Your task to perform on an android device: clear all cookies in the chrome app Image 0: 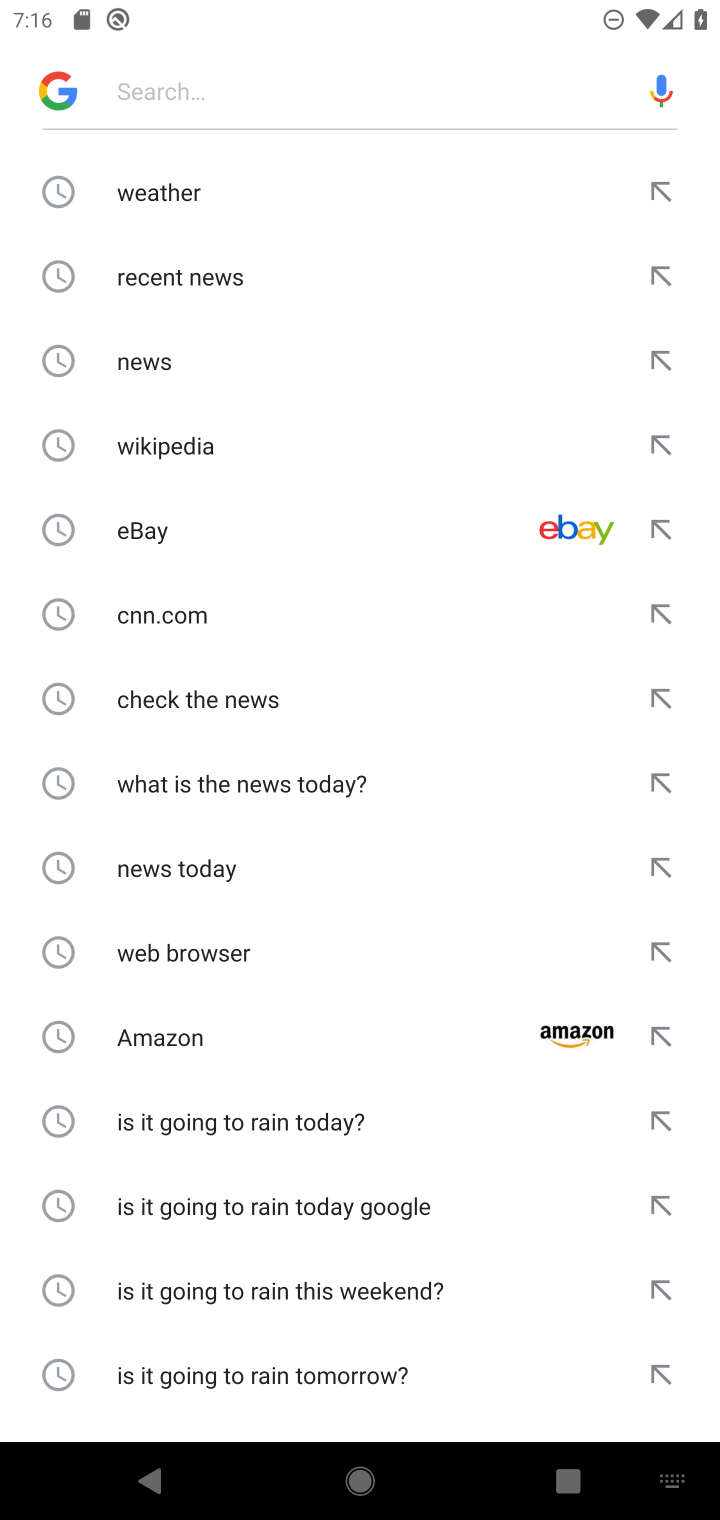
Step 0: press home button
Your task to perform on an android device: clear all cookies in the chrome app Image 1: 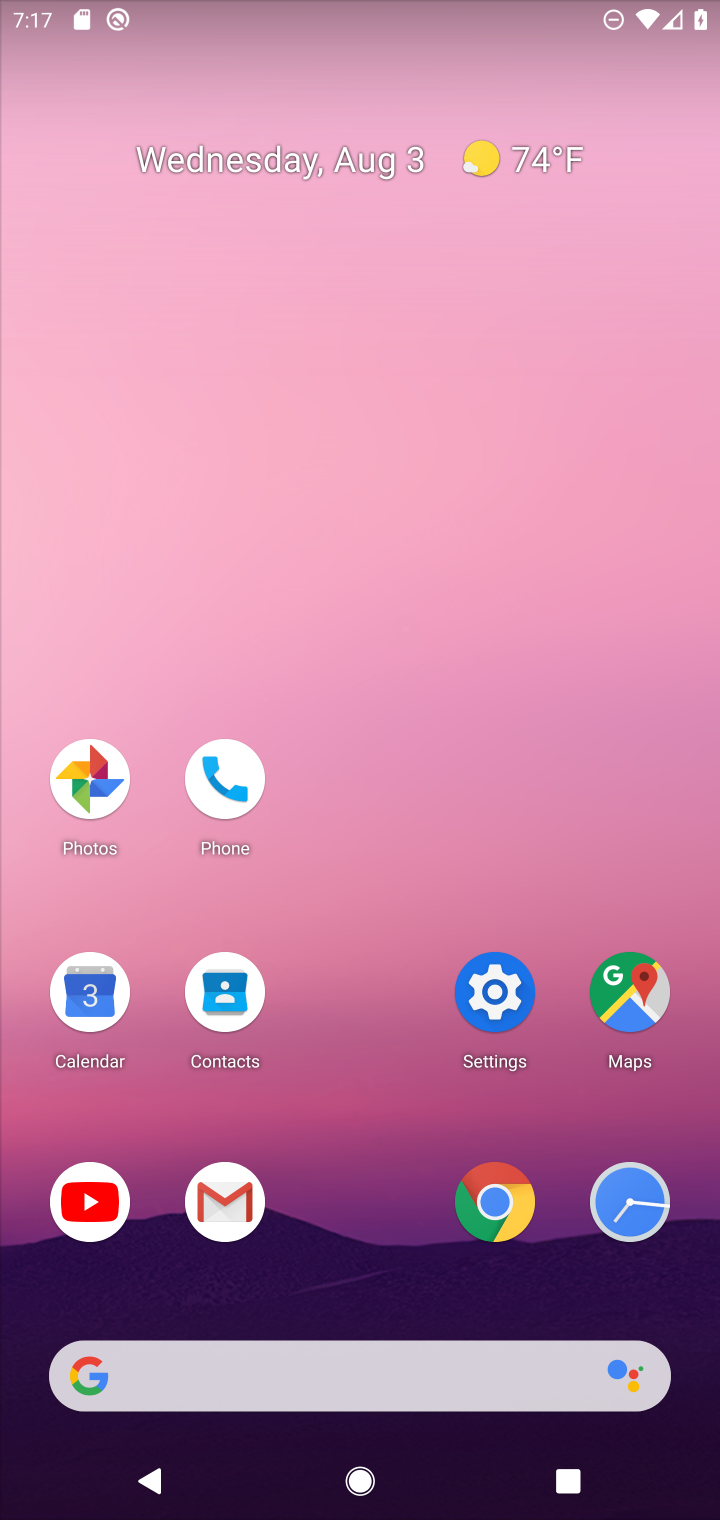
Step 1: click (493, 1190)
Your task to perform on an android device: clear all cookies in the chrome app Image 2: 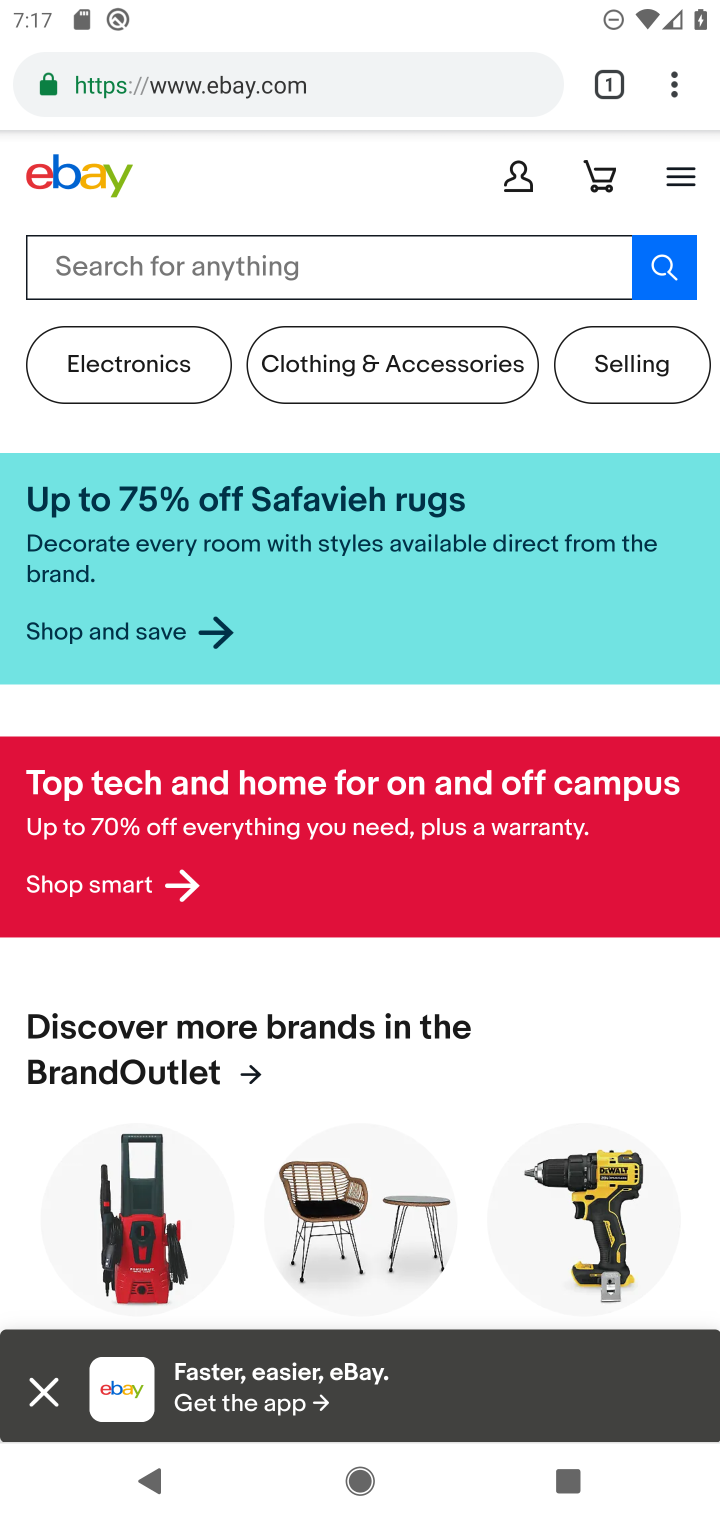
Step 2: click (680, 83)
Your task to perform on an android device: clear all cookies in the chrome app Image 3: 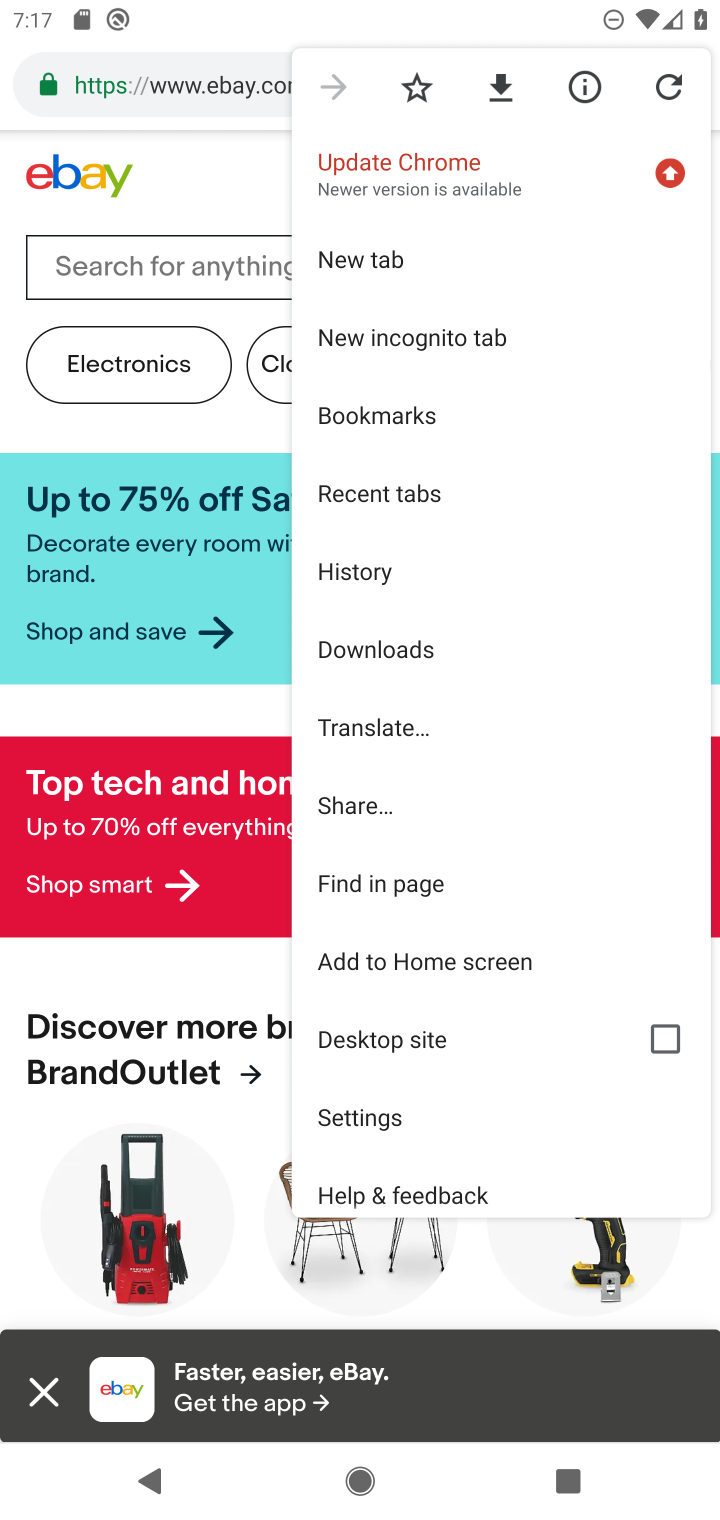
Step 3: click (366, 561)
Your task to perform on an android device: clear all cookies in the chrome app Image 4: 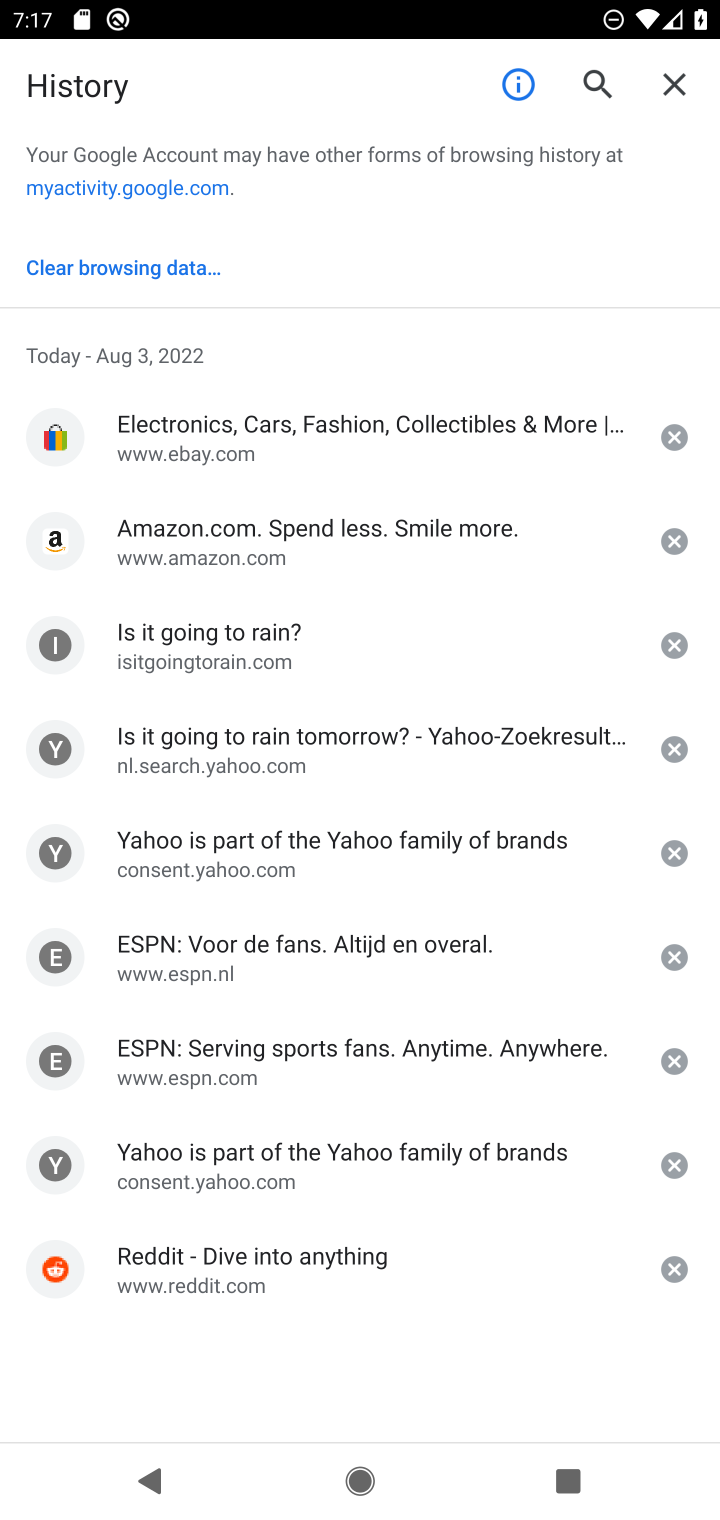
Step 4: click (116, 269)
Your task to perform on an android device: clear all cookies in the chrome app Image 5: 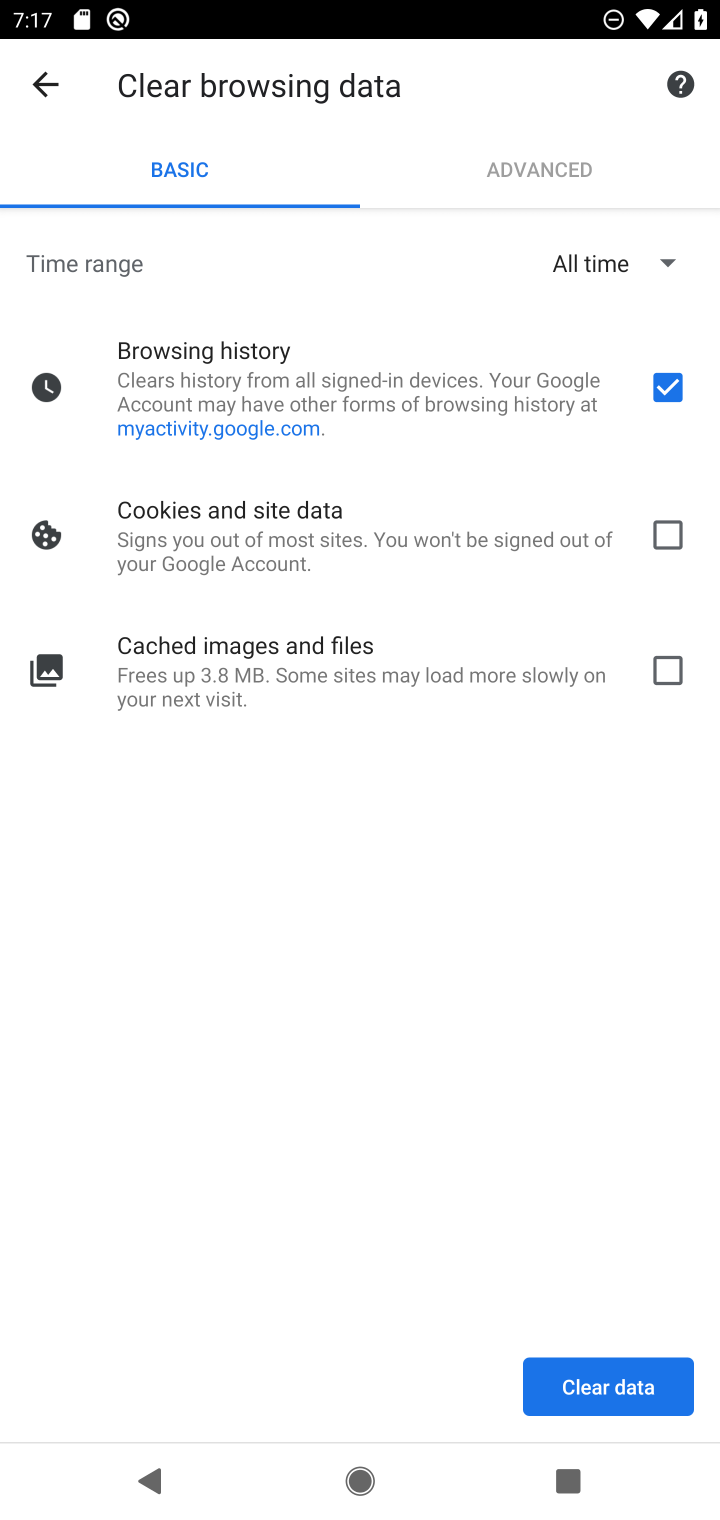
Step 5: click (661, 530)
Your task to perform on an android device: clear all cookies in the chrome app Image 6: 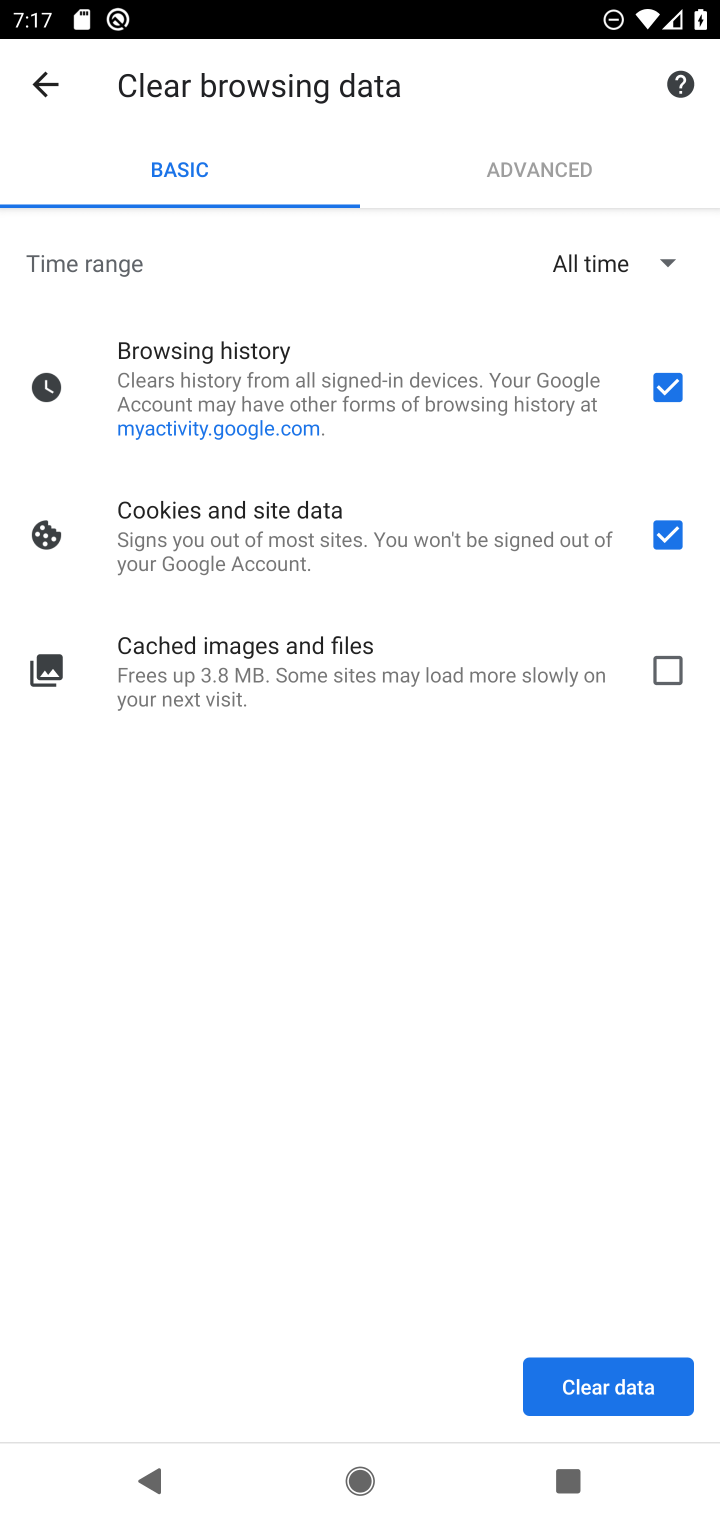
Step 6: click (673, 382)
Your task to perform on an android device: clear all cookies in the chrome app Image 7: 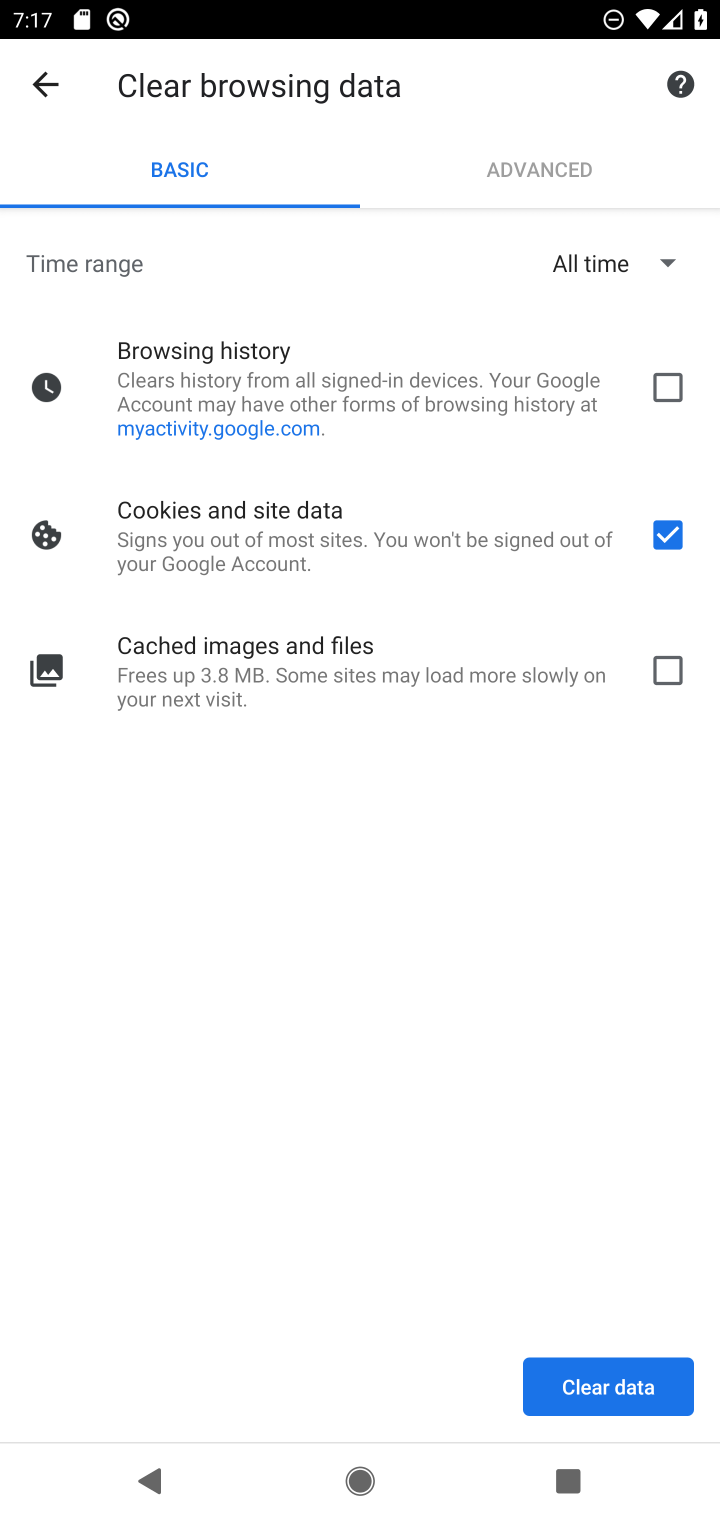
Step 7: click (615, 1387)
Your task to perform on an android device: clear all cookies in the chrome app Image 8: 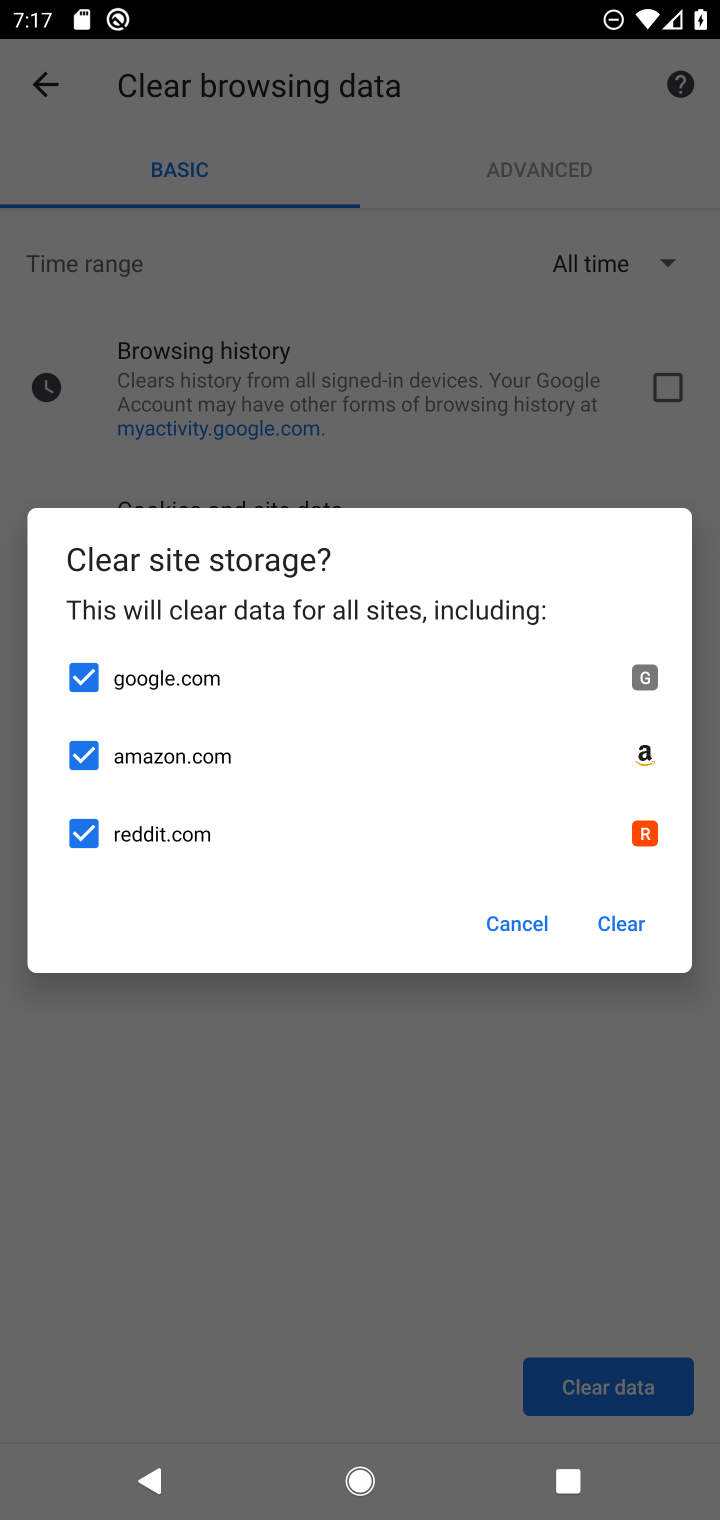
Step 8: click (621, 917)
Your task to perform on an android device: clear all cookies in the chrome app Image 9: 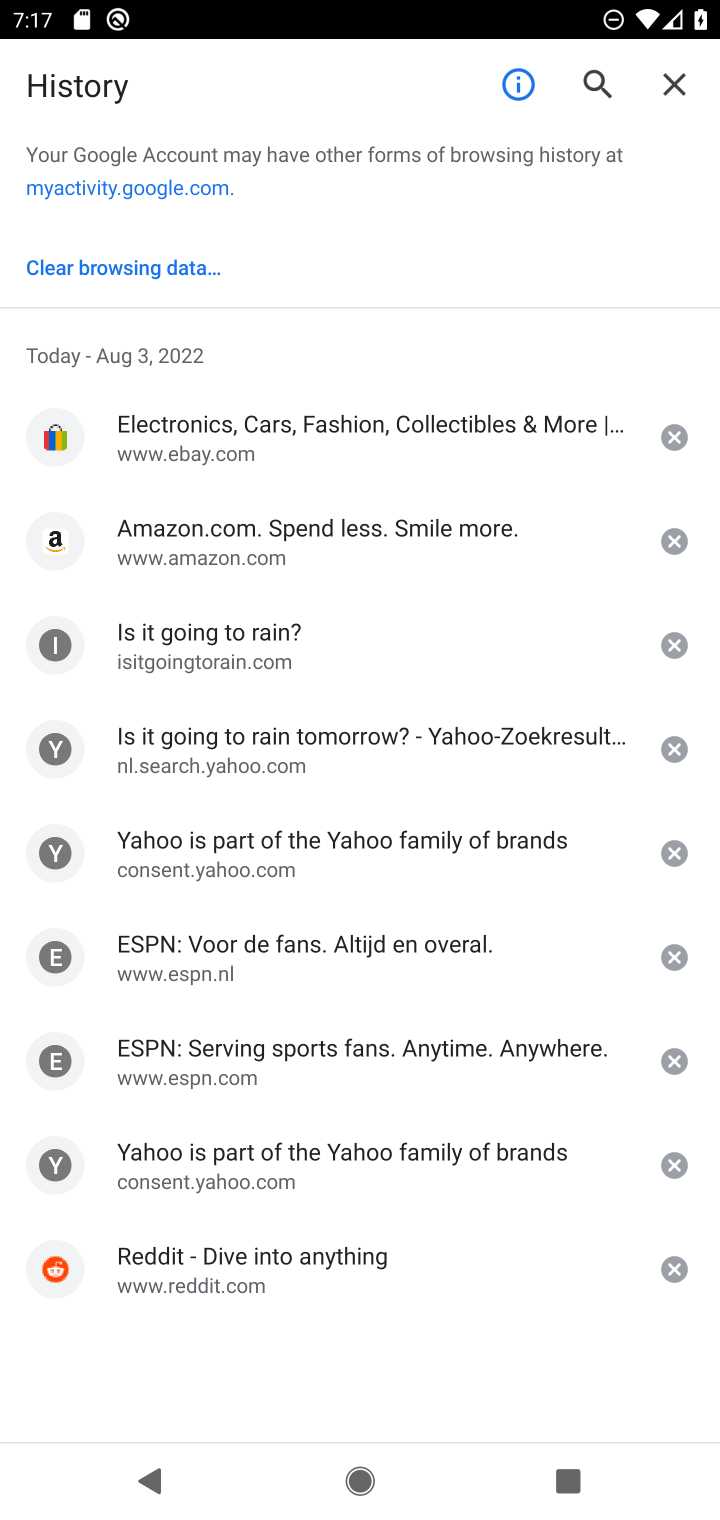
Step 9: task complete